Your task to perform on an android device: see tabs open on other devices in the chrome app Image 0: 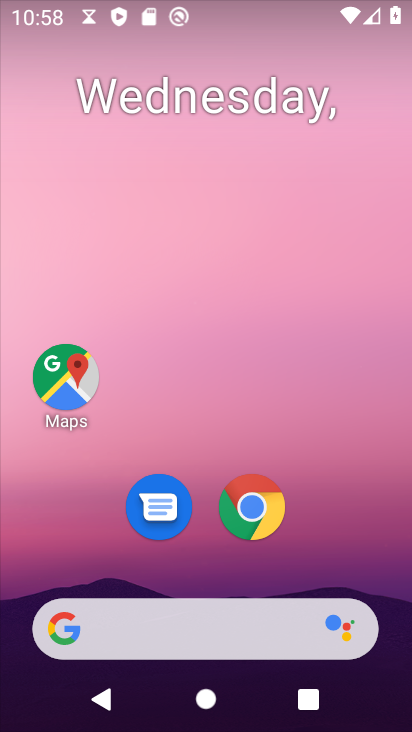
Step 0: drag from (254, 639) to (243, 201)
Your task to perform on an android device: see tabs open on other devices in the chrome app Image 1: 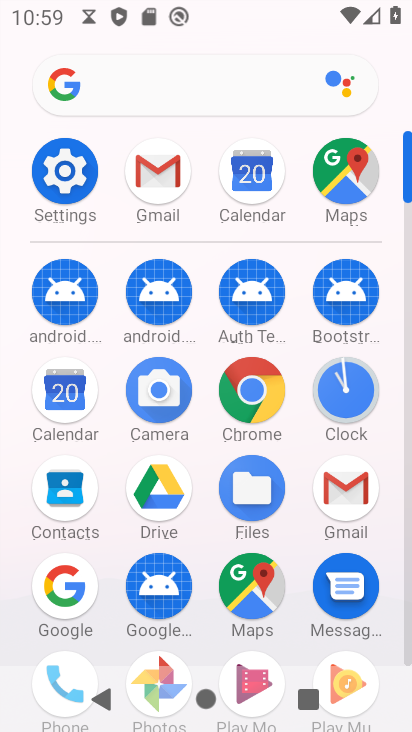
Step 1: click (263, 402)
Your task to perform on an android device: see tabs open on other devices in the chrome app Image 2: 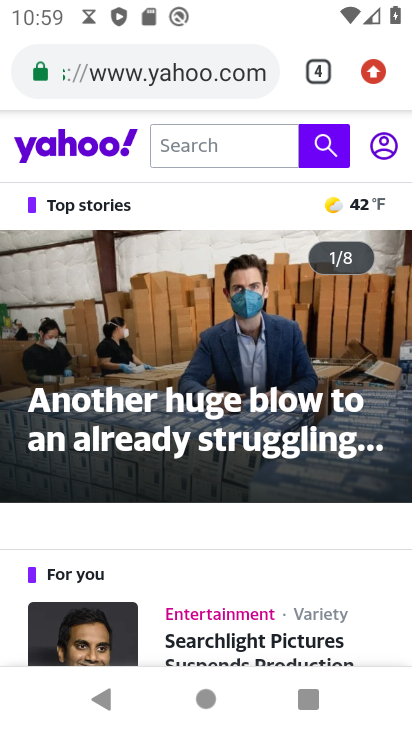
Step 2: click (320, 71)
Your task to perform on an android device: see tabs open on other devices in the chrome app Image 3: 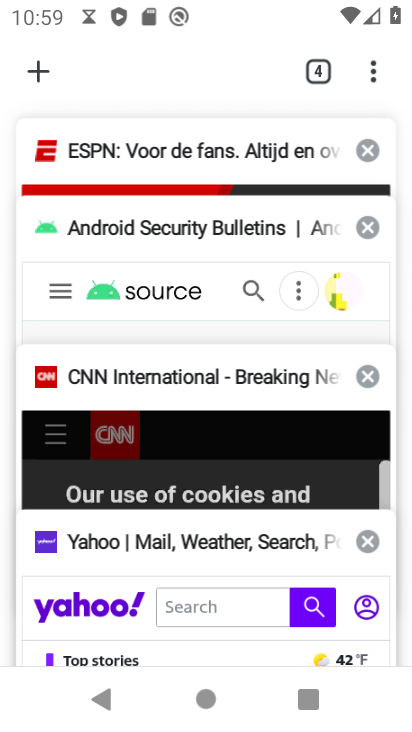
Step 3: click (50, 81)
Your task to perform on an android device: see tabs open on other devices in the chrome app Image 4: 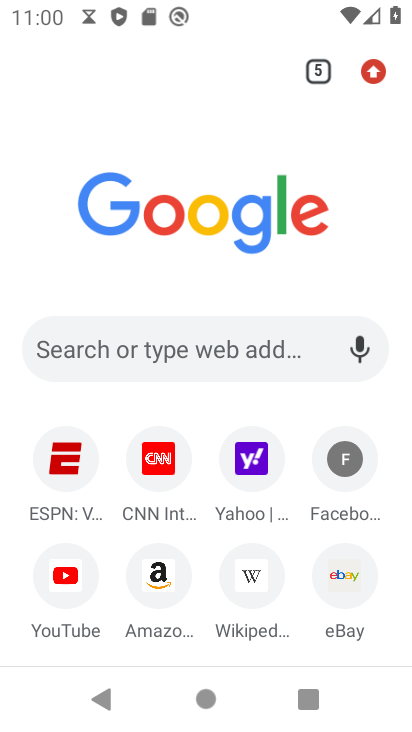
Step 4: task complete